Your task to perform on an android device: Open the phone app and click the voicemail tab. Image 0: 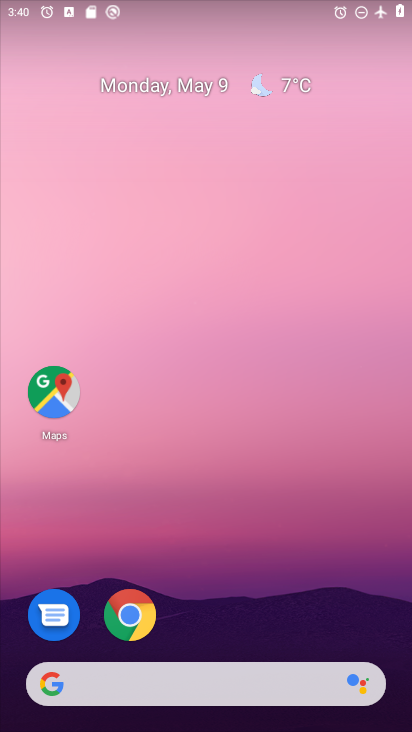
Step 0: drag from (358, 619) to (317, 110)
Your task to perform on an android device: Open the phone app and click the voicemail tab. Image 1: 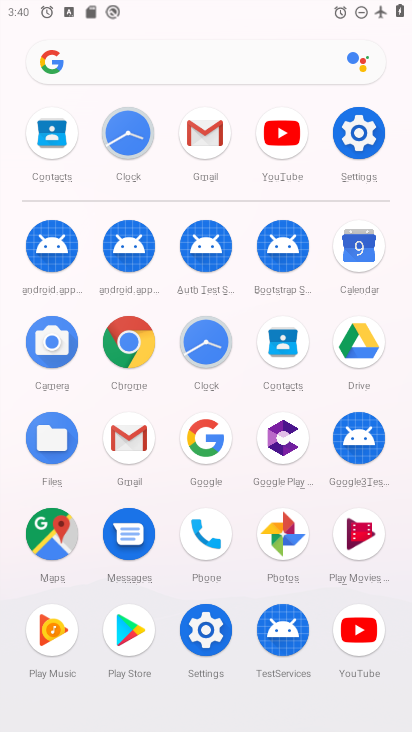
Step 1: click (200, 529)
Your task to perform on an android device: Open the phone app and click the voicemail tab. Image 2: 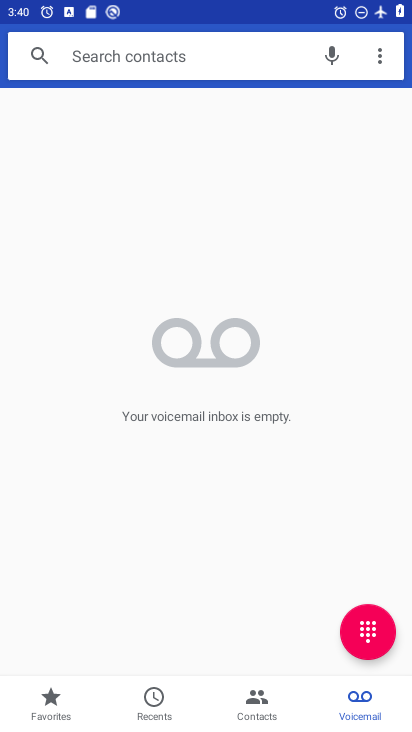
Step 2: task complete